Your task to perform on an android device: turn off improve location accuracy Image 0: 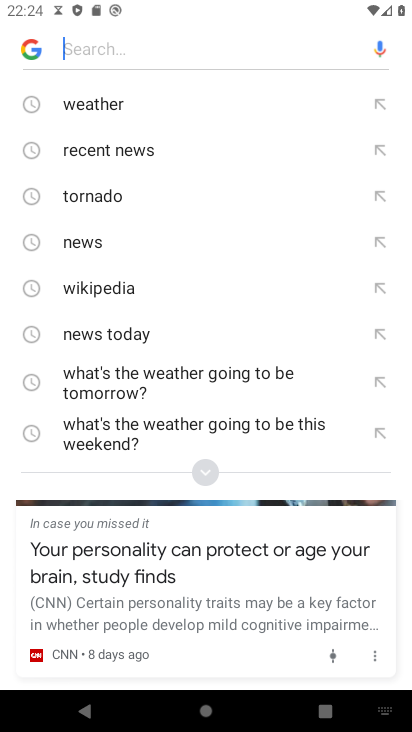
Step 0: press home button
Your task to perform on an android device: turn off improve location accuracy Image 1: 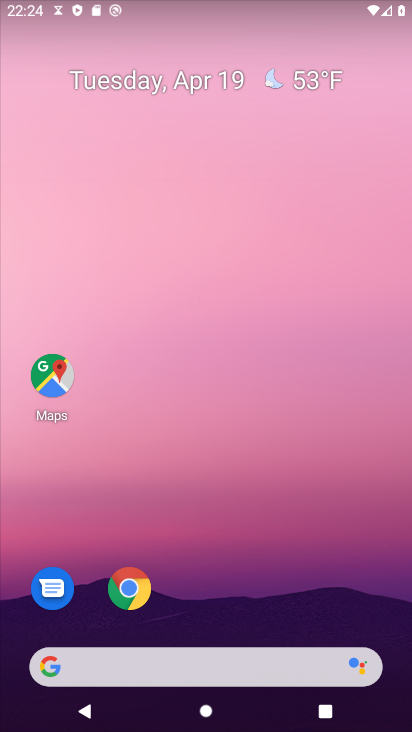
Step 1: drag from (198, 599) to (249, 47)
Your task to perform on an android device: turn off improve location accuracy Image 2: 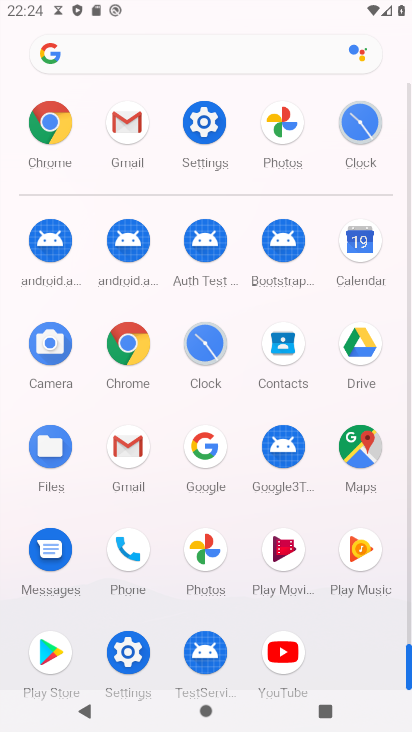
Step 2: click (205, 124)
Your task to perform on an android device: turn off improve location accuracy Image 3: 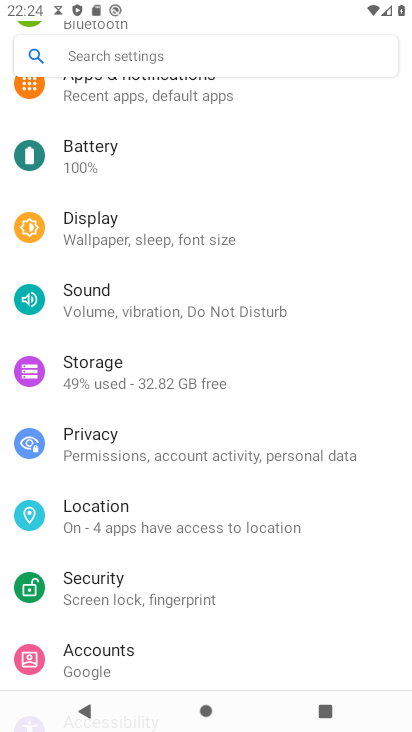
Step 3: click (134, 522)
Your task to perform on an android device: turn off improve location accuracy Image 4: 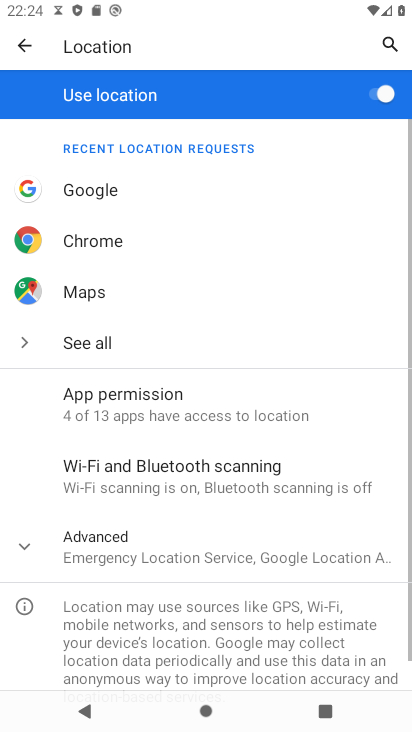
Step 4: click (156, 548)
Your task to perform on an android device: turn off improve location accuracy Image 5: 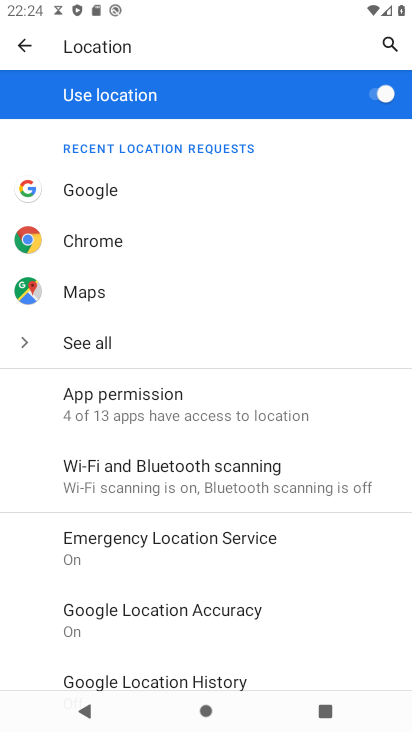
Step 5: click (177, 617)
Your task to perform on an android device: turn off improve location accuracy Image 6: 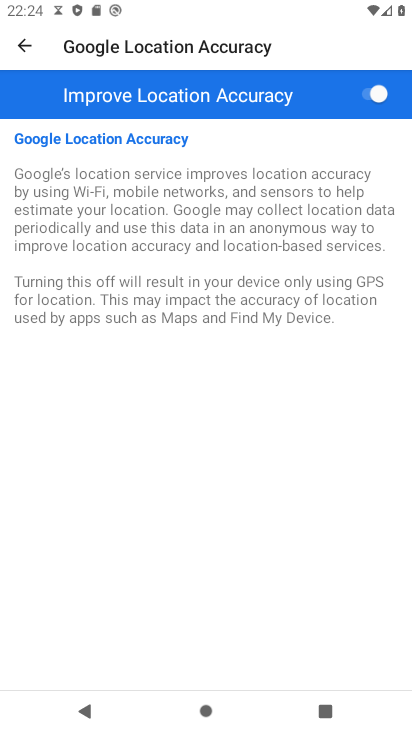
Step 6: click (374, 93)
Your task to perform on an android device: turn off improve location accuracy Image 7: 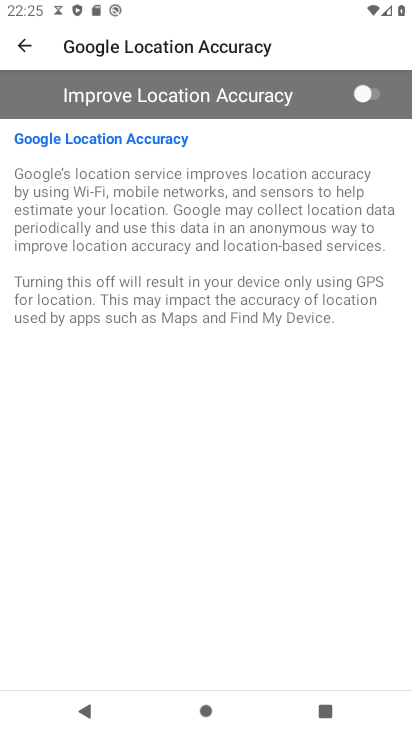
Step 7: task complete